Your task to perform on an android device: Go to accessibility settings Image 0: 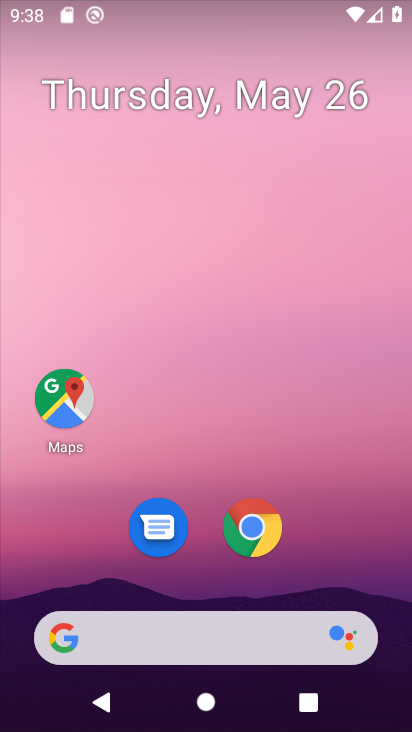
Step 0: drag from (362, 579) to (348, 8)
Your task to perform on an android device: Go to accessibility settings Image 1: 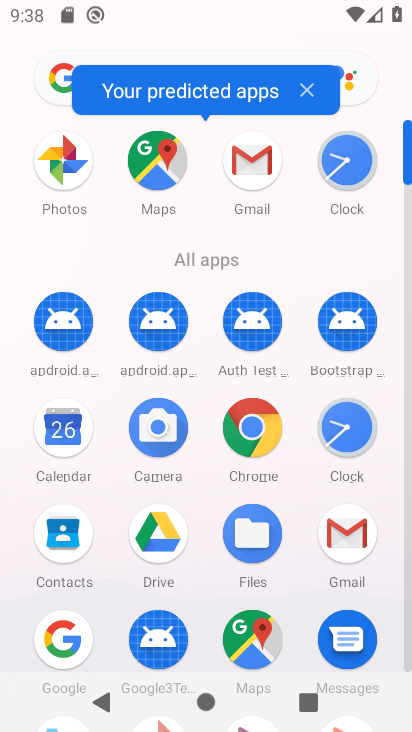
Step 1: drag from (245, 252) to (266, 13)
Your task to perform on an android device: Go to accessibility settings Image 2: 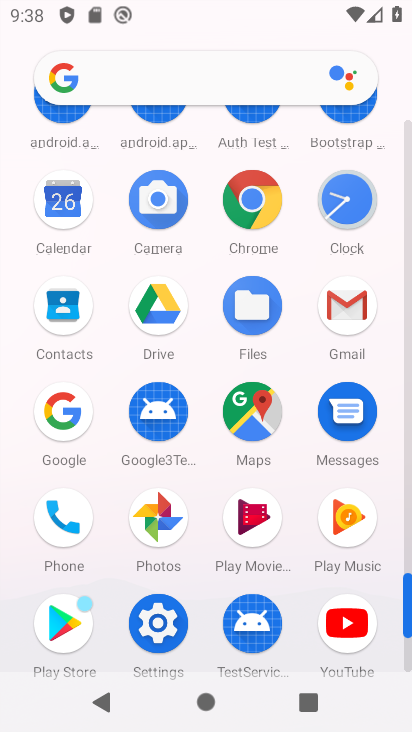
Step 2: click (157, 606)
Your task to perform on an android device: Go to accessibility settings Image 3: 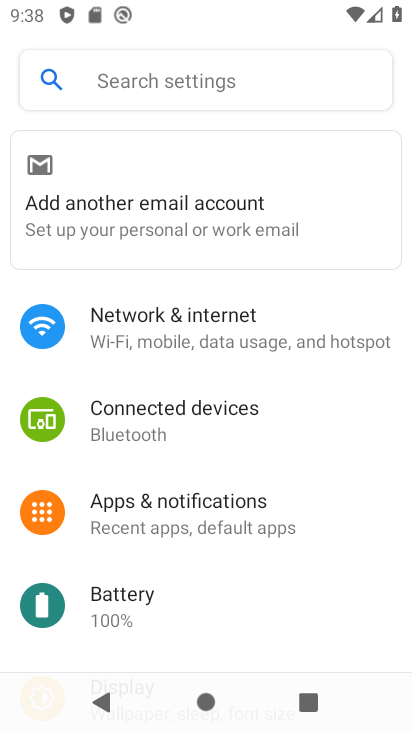
Step 3: drag from (193, 605) to (179, 304)
Your task to perform on an android device: Go to accessibility settings Image 4: 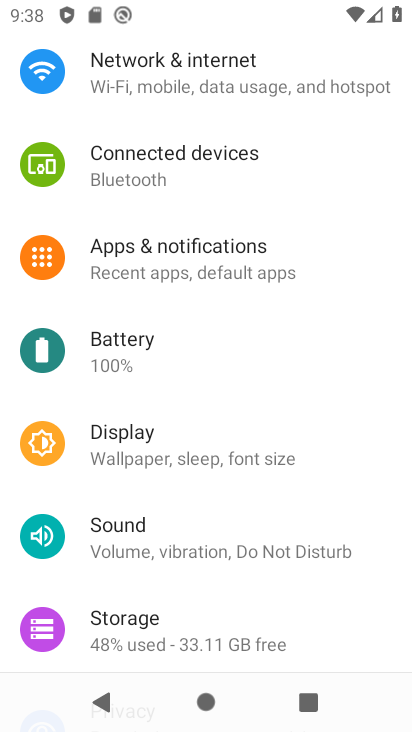
Step 4: drag from (194, 619) to (234, 269)
Your task to perform on an android device: Go to accessibility settings Image 5: 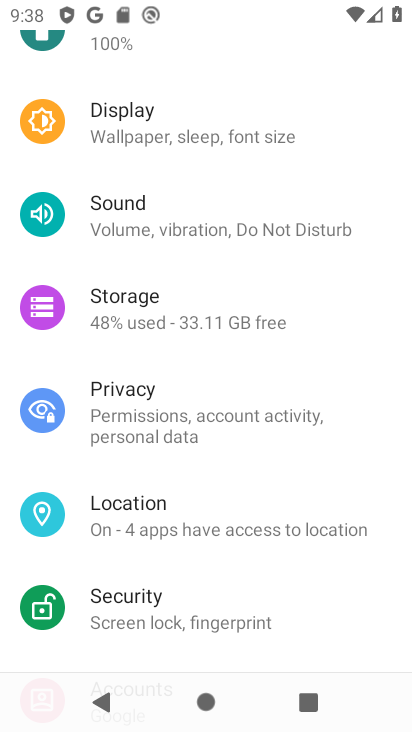
Step 5: drag from (220, 543) to (229, 234)
Your task to perform on an android device: Go to accessibility settings Image 6: 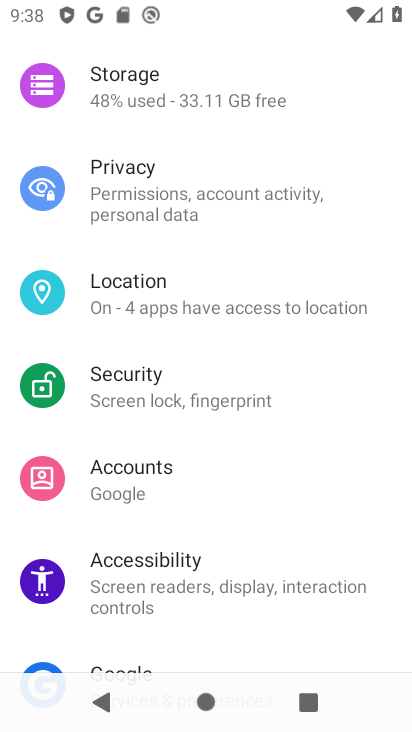
Step 6: click (192, 588)
Your task to perform on an android device: Go to accessibility settings Image 7: 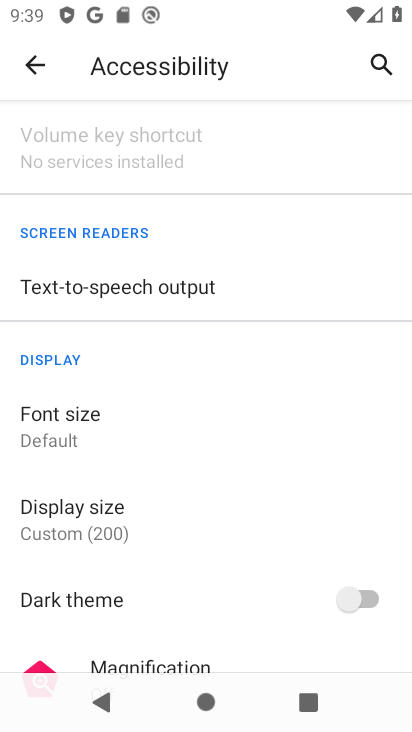
Step 7: task complete